Your task to perform on an android device: turn on the 24-hour format for clock Image 0: 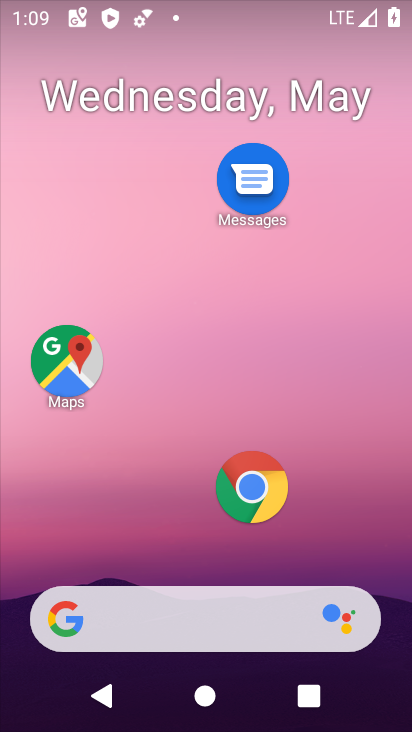
Step 0: drag from (172, 551) to (287, 70)
Your task to perform on an android device: turn on the 24-hour format for clock Image 1: 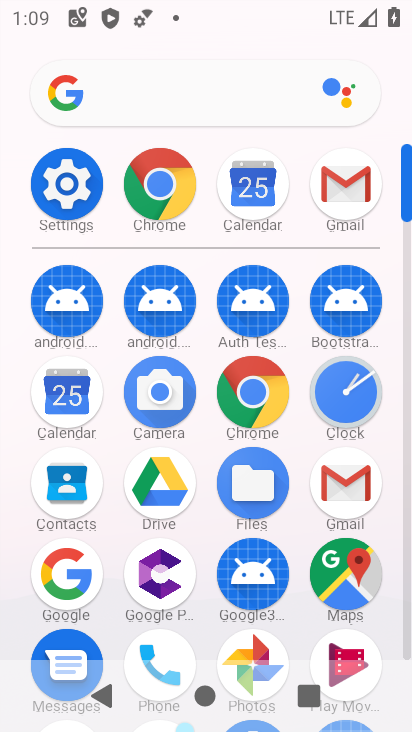
Step 1: click (346, 398)
Your task to perform on an android device: turn on the 24-hour format for clock Image 2: 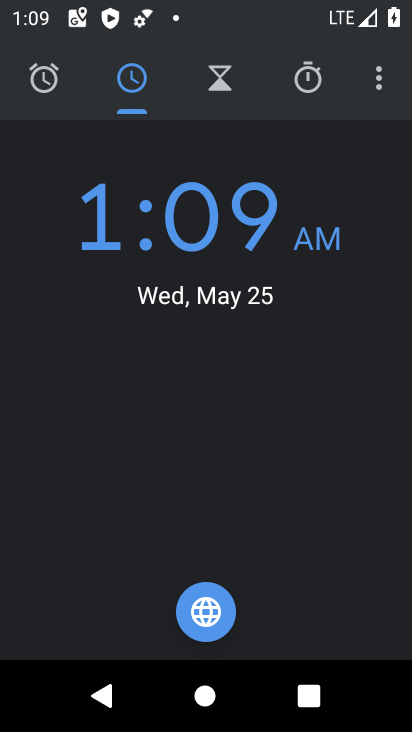
Step 2: press home button
Your task to perform on an android device: turn on the 24-hour format for clock Image 3: 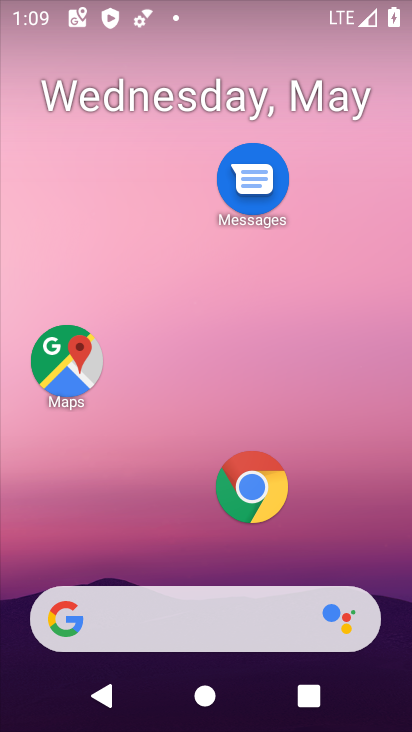
Step 3: drag from (162, 542) to (281, 8)
Your task to perform on an android device: turn on the 24-hour format for clock Image 4: 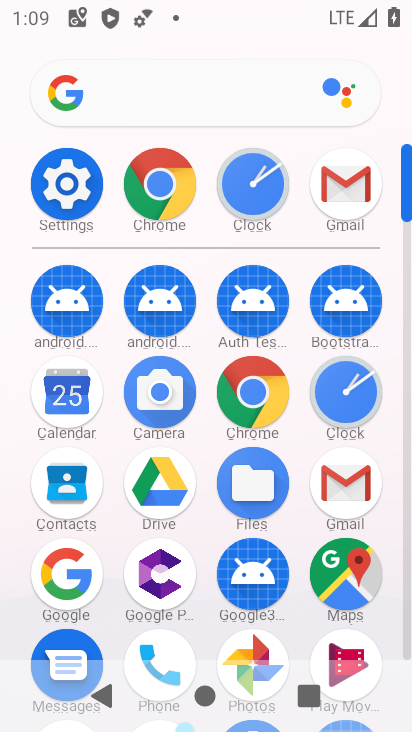
Step 4: click (72, 212)
Your task to perform on an android device: turn on the 24-hour format for clock Image 5: 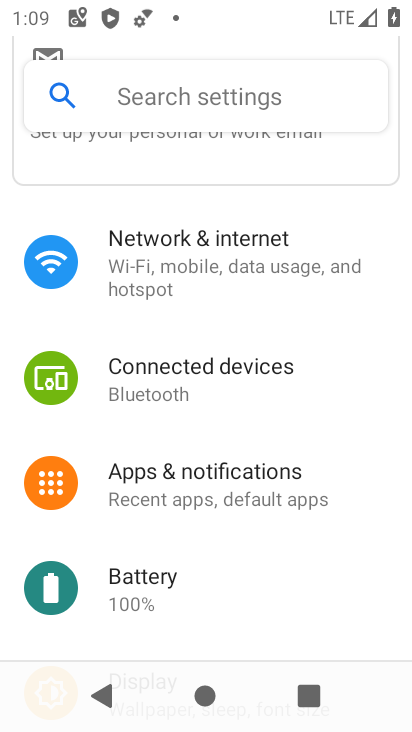
Step 5: drag from (190, 571) to (254, 176)
Your task to perform on an android device: turn on the 24-hour format for clock Image 6: 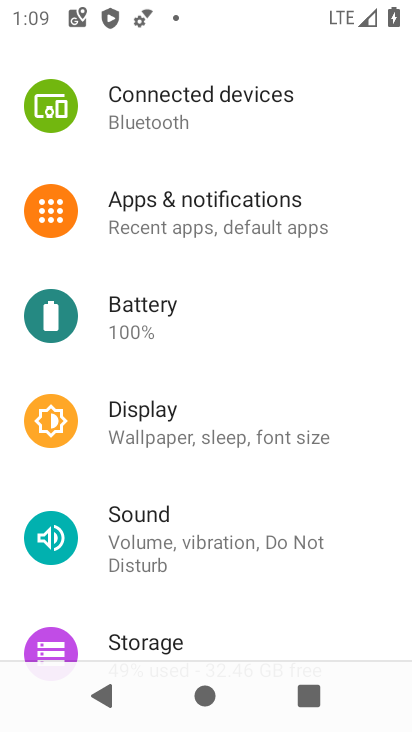
Step 6: drag from (183, 563) to (215, 210)
Your task to perform on an android device: turn on the 24-hour format for clock Image 7: 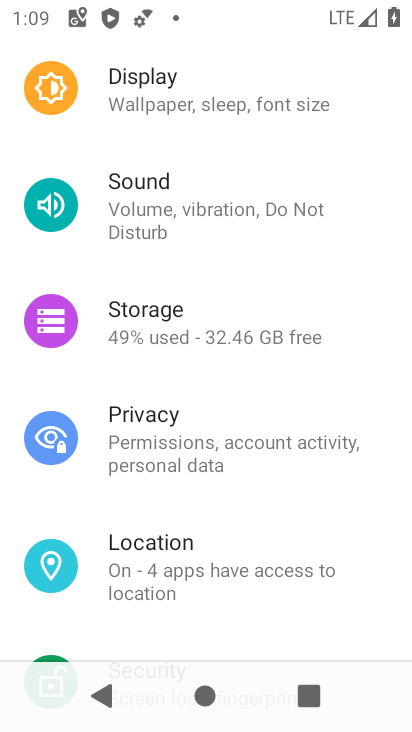
Step 7: drag from (146, 607) to (232, 151)
Your task to perform on an android device: turn on the 24-hour format for clock Image 8: 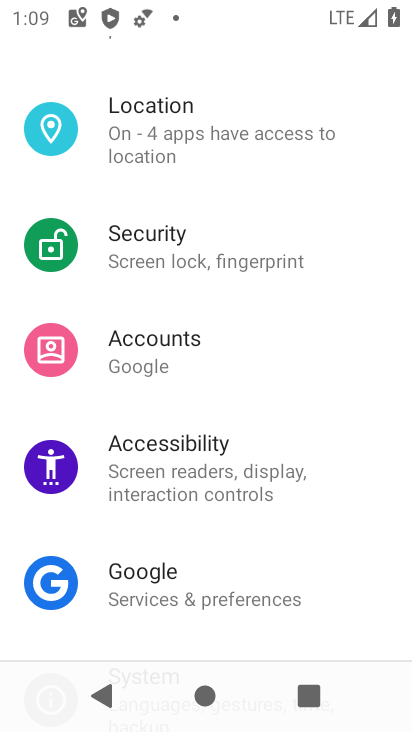
Step 8: drag from (186, 534) to (229, 318)
Your task to perform on an android device: turn on the 24-hour format for clock Image 9: 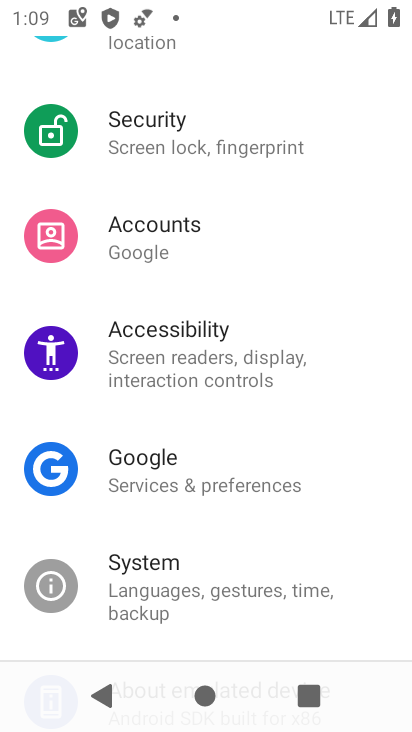
Step 9: click (145, 592)
Your task to perform on an android device: turn on the 24-hour format for clock Image 10: 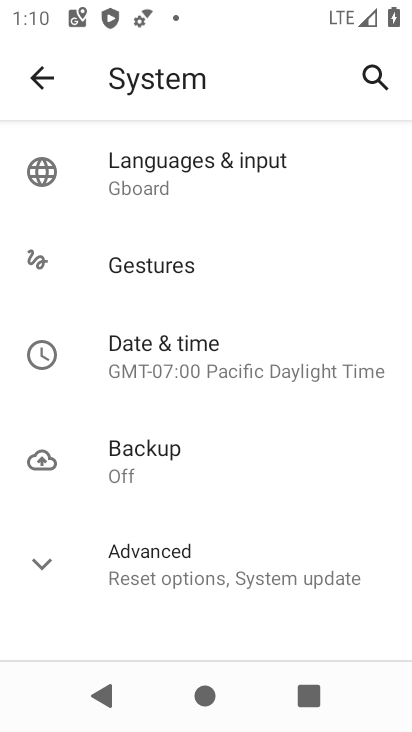
Step 10: click (164, 573)
Your task to perform on an android device: turn on the 24-hour format for clock Image 11: 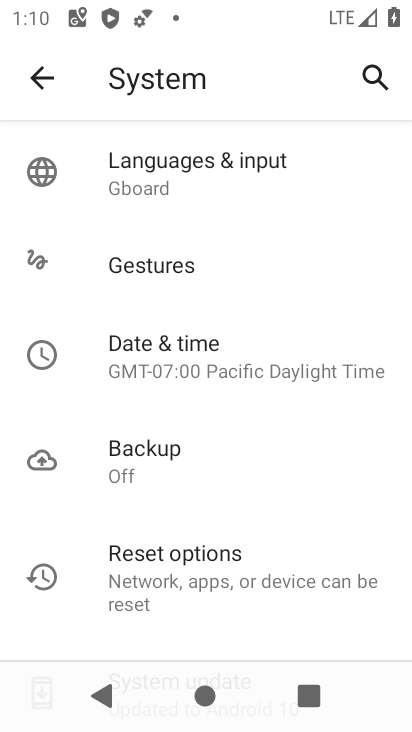
Step 11: click (197, 364)
Your task to perform on an android device: turn on the 24-hour format for clock Image 12: 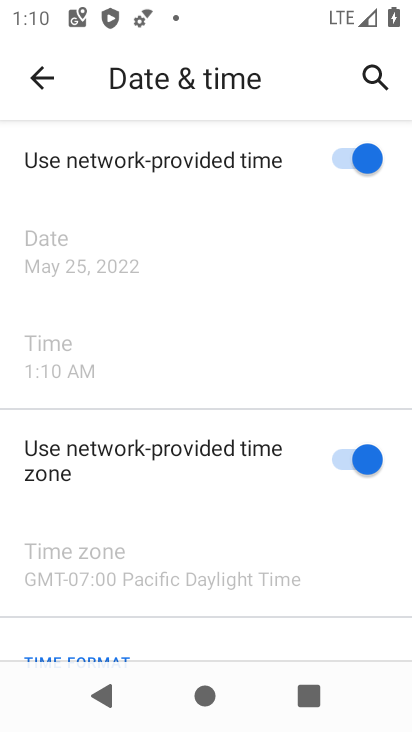
Step 12: drag from (197, 487) to (272, 113)
Your task to perform on an android device: turn on the 24-hour format for clock Image 13: 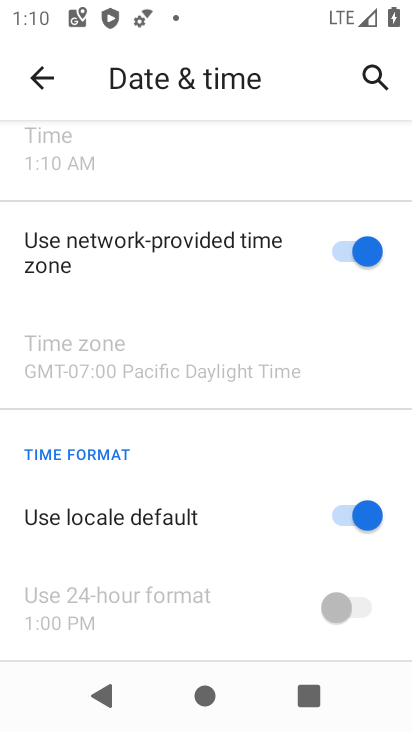
Step 13: click (340, 520)
Your task to perform on an android device: turn on the 24-hour format for clock Image 14: 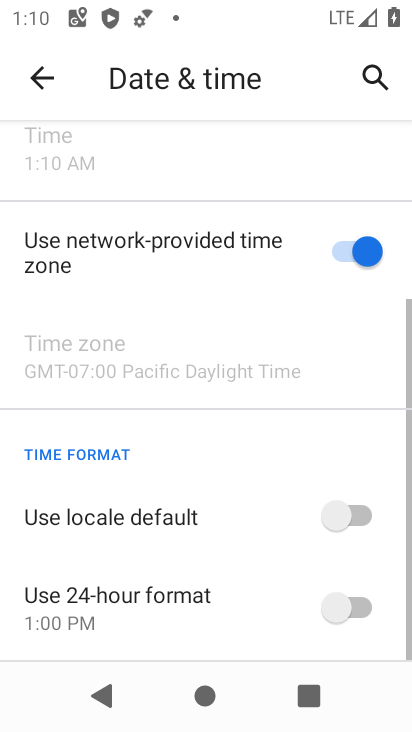
Step 14: click (375, 609)
Your task to perform on an android device: turn on the 24-hour format for clock Image 15: 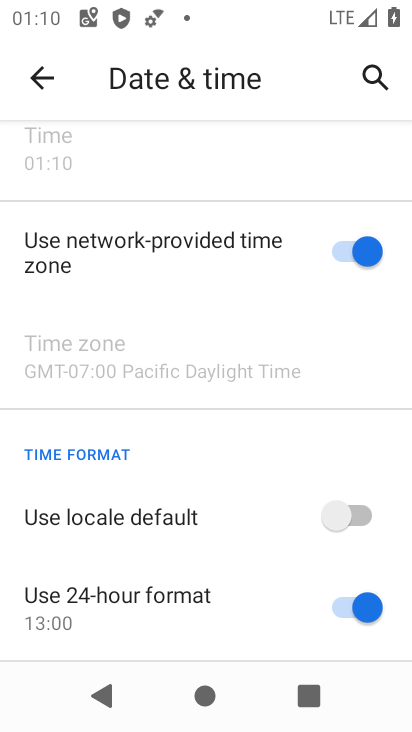
Step 15: task complete